Your task to perform on an android device: turn off location Image 0: 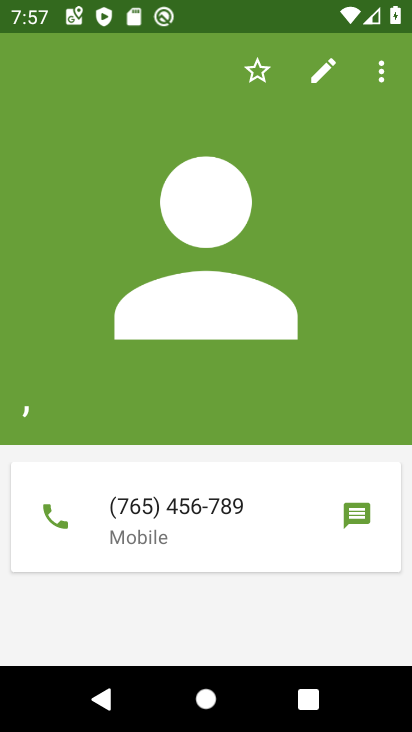
Step 0: press home button
Your task to perform on an android device: turn off location Image 1: 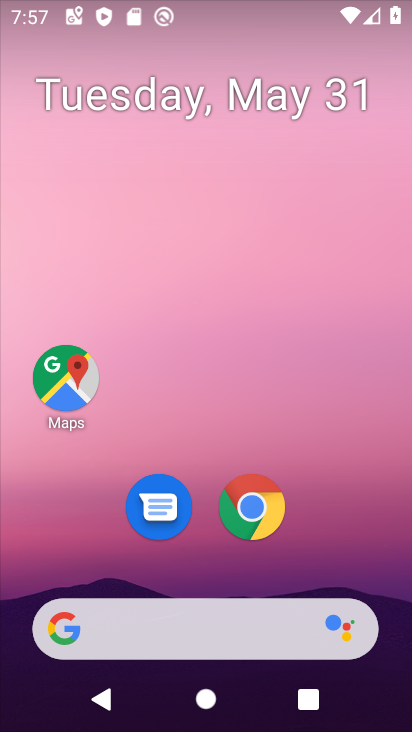
Step 1: drag from (342, 537) to (279, 194)
Your task to perform on an android device: turn off location Image 2: 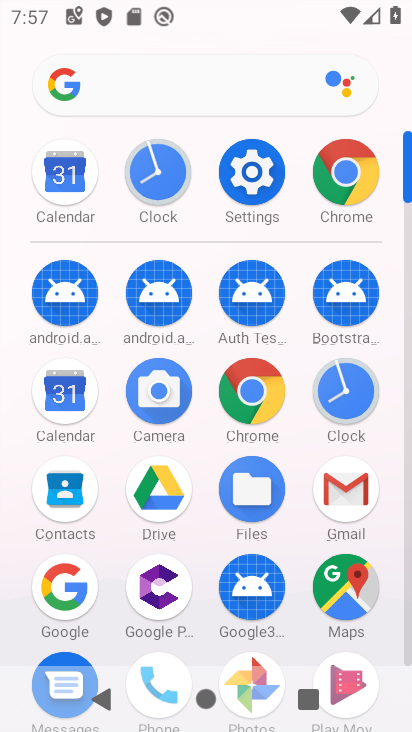
Step 2: click (269, 170)
Your task to perform on an android device: turn off location Image 3: 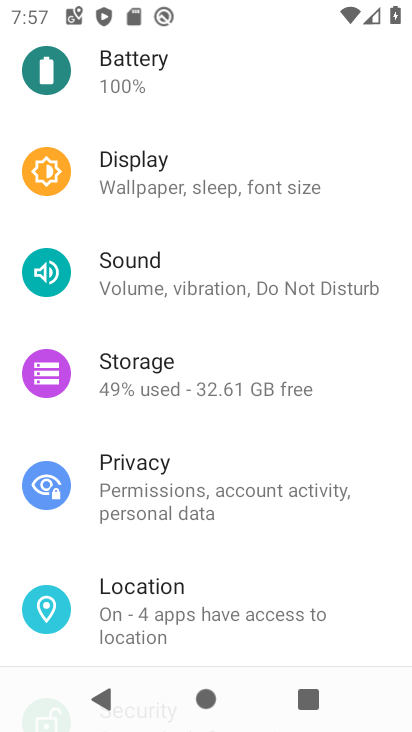
Step 3: drag from (288, 574) to (296, 210)
Your task to perform on an android device: turn off location Image 4: 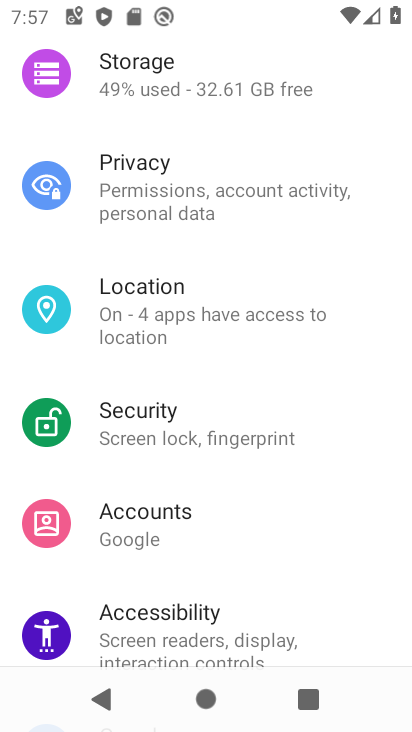
Step 4: drag from (302, 561) to (251, 203)
Your task to perform on an android device: turn off location Image 5: 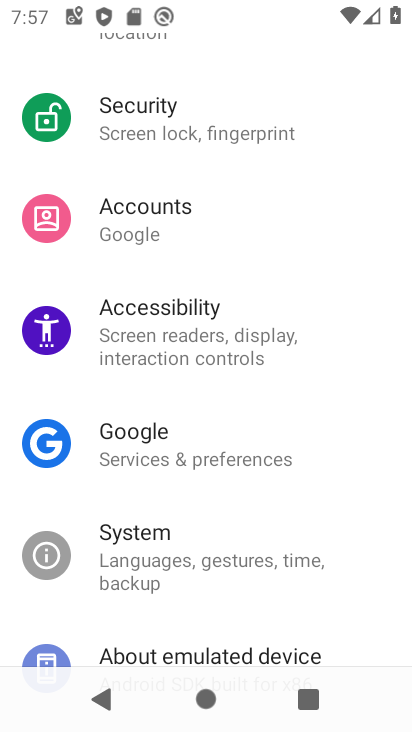
Step 5: drag from (175, 168) to (218, 438)
Your task to perform on an android device: turn off location Image 6: 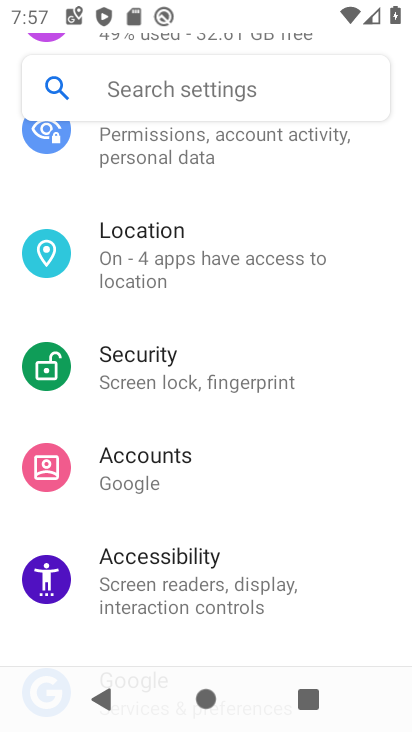
Step 6: click (225, 258)
Your task to perform on an android device: turn off location Image 7: 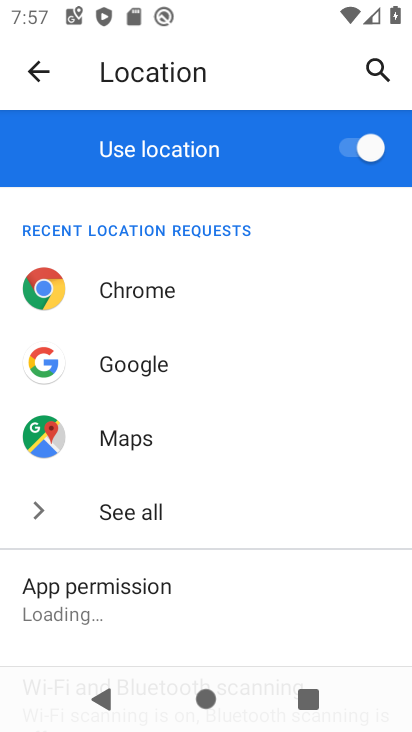
Step 7: click (379, 150)
Your task to perform on an android device: turn off location Image 8: 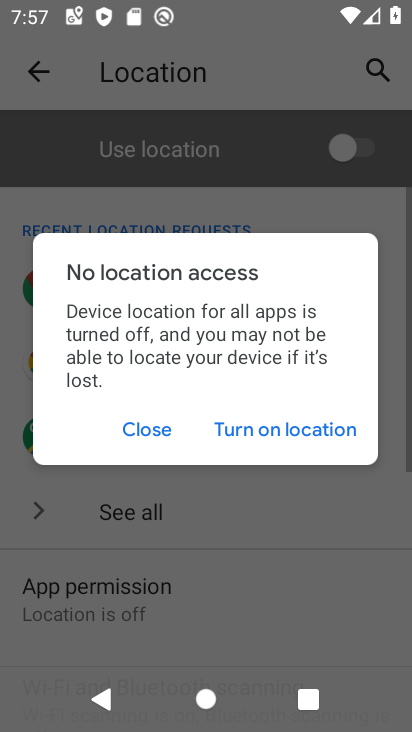
Step 8: task complete